Your task to perform on an android device: open app "Chime – Mobile Banking" (install if not already installed), go to login, and select forgot password Image 0: 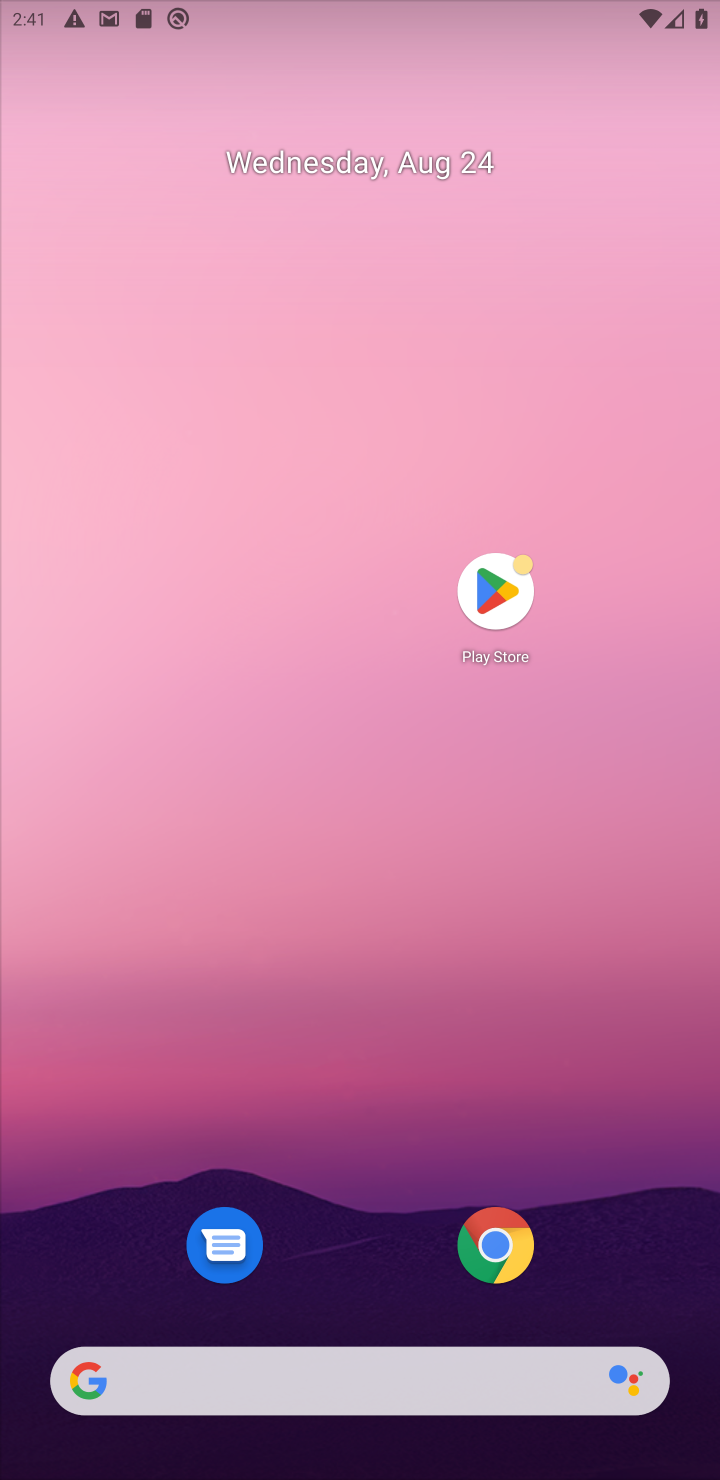
Step 0: press home button
Your task to perform on an android device: open app "Chime – Mobile Banking" (install if not already installed), go to login, and select forgot password Image 1: 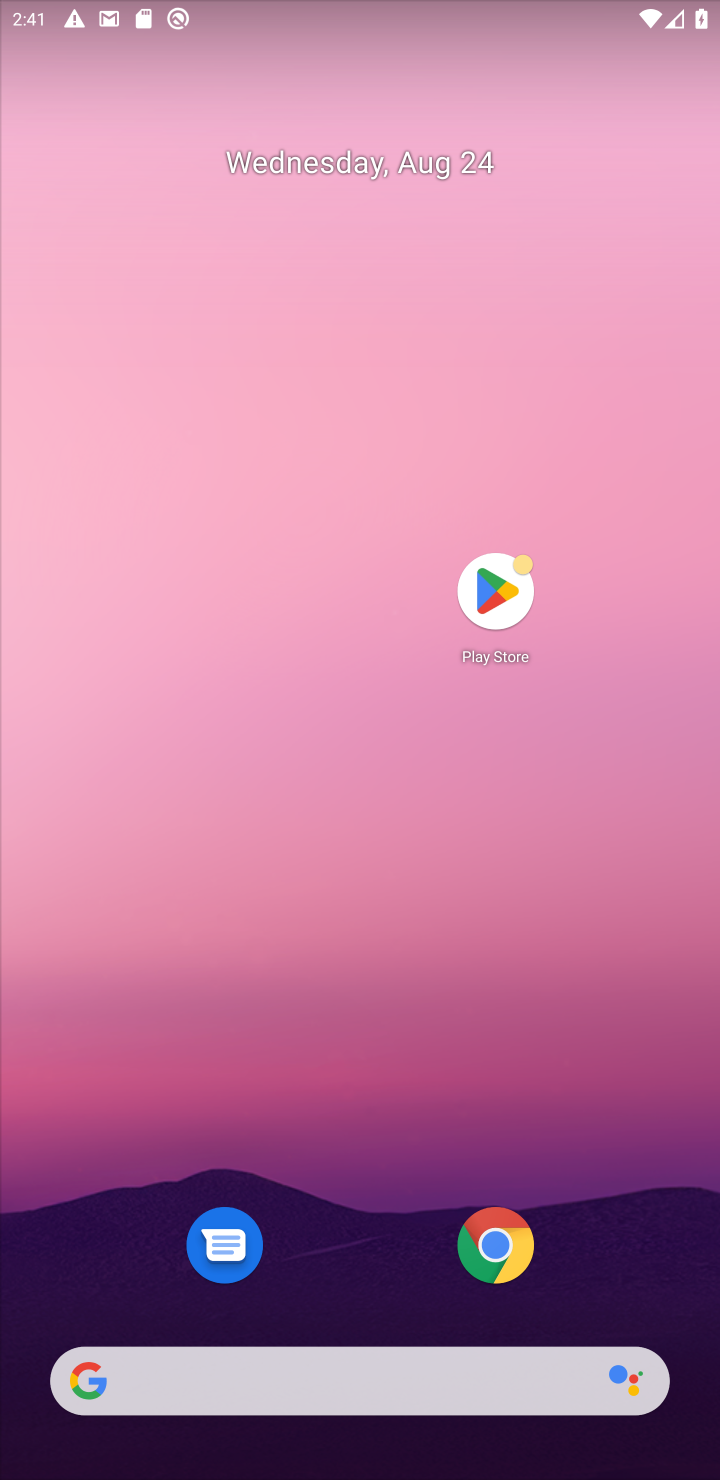
Step 1: click (509, 584)
Your task to perform on an android device: open app "Chime – Mobile Banking" (install if not already installed), go to login, and select forgot password Image 2: 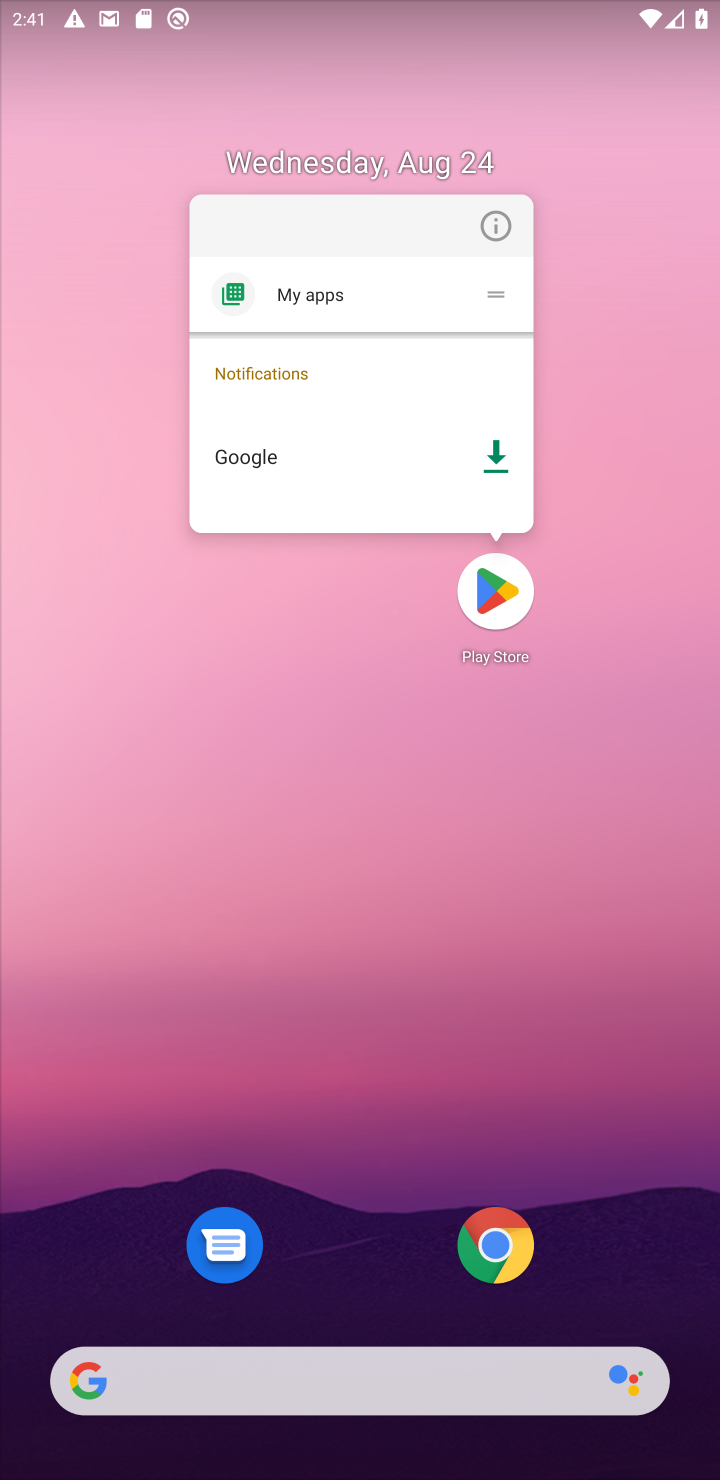
Step 2: click (509, 593)
Your task to perform on an android device: open app "Chime – Mobile Banking" (install if not already installed), go to login, and select forgot password Image 3: 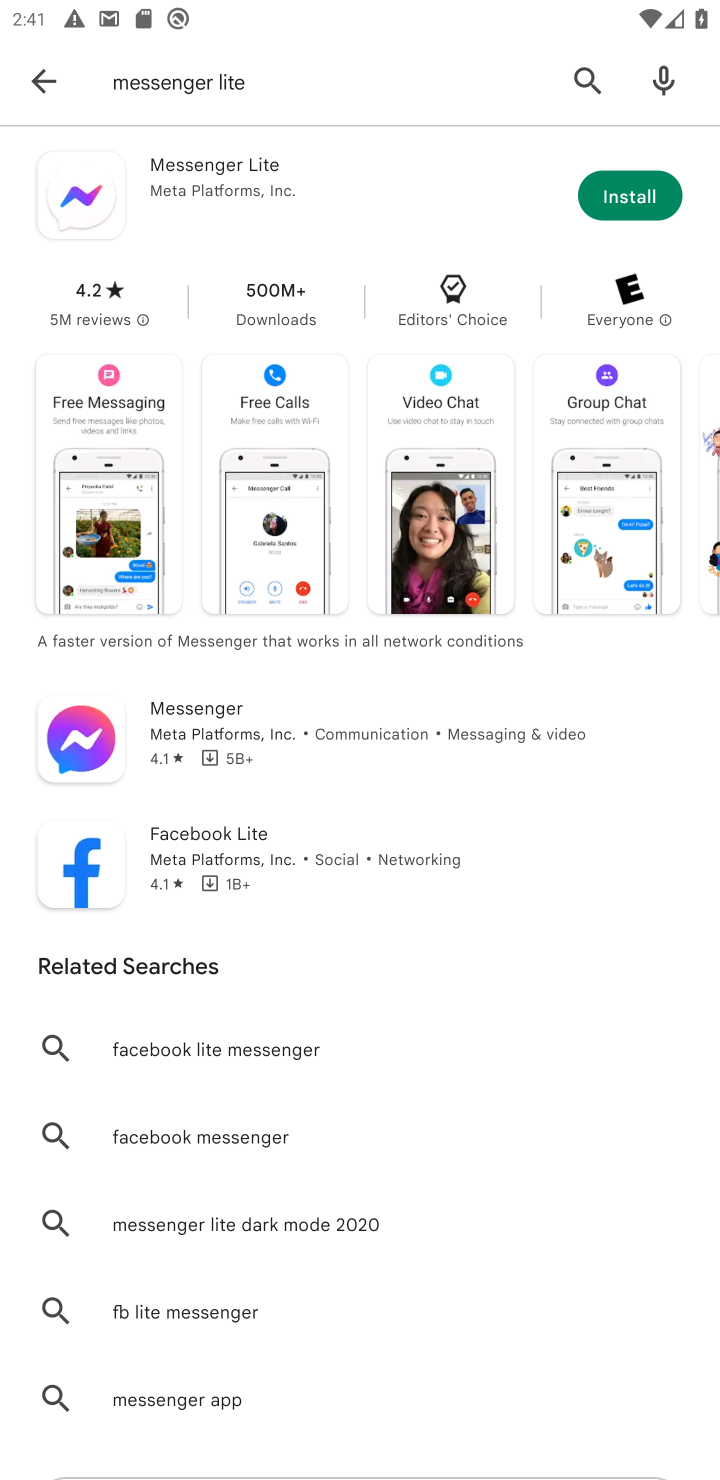
Step 3: click (578, 79)
Your task to perform on an android device: open app "Chime – Mobile Banking" (install if not already installed), go to login, and select forgot password Image 4: 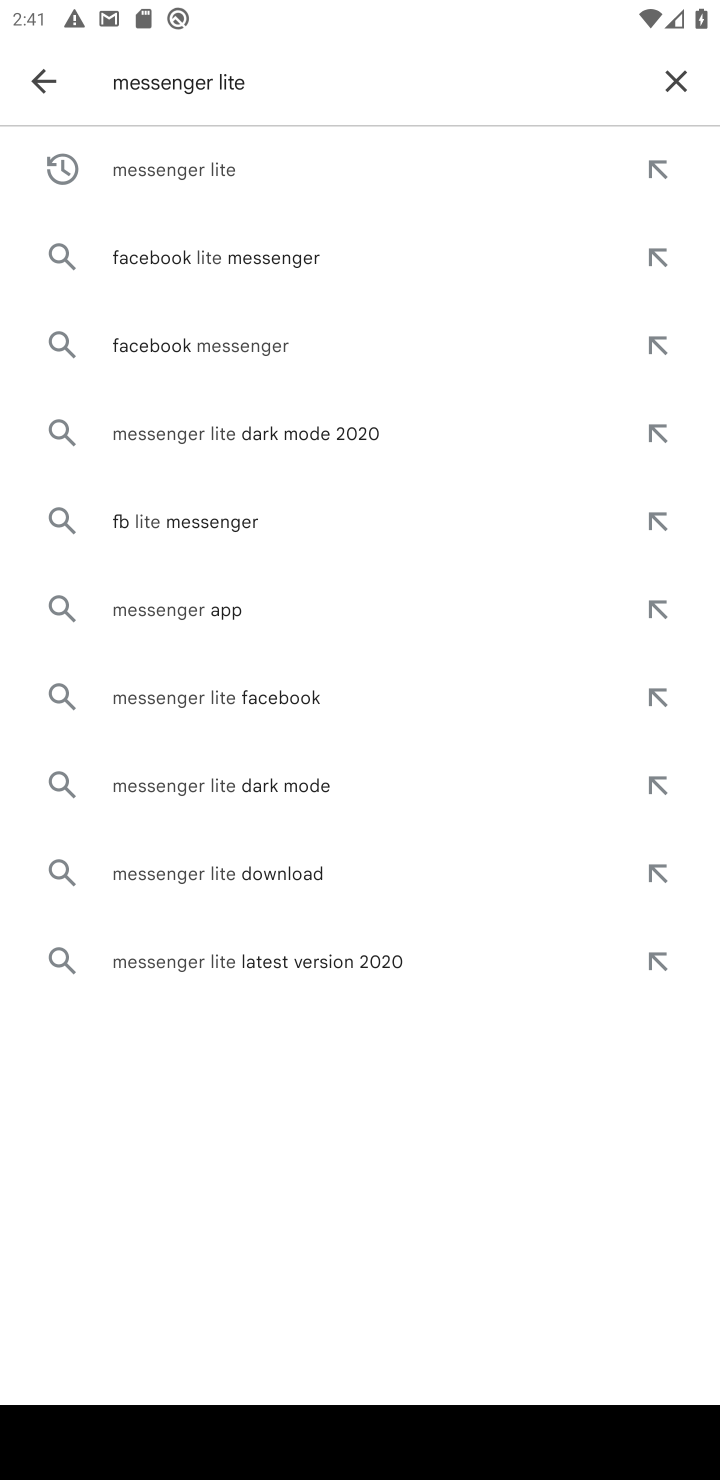
Step 4: type "Chime Mobile Banking"
Your task to perform on an android device: open app "Chime – Mobile Banking" (install if not already installed), go to login, and select forgot password Image 5: 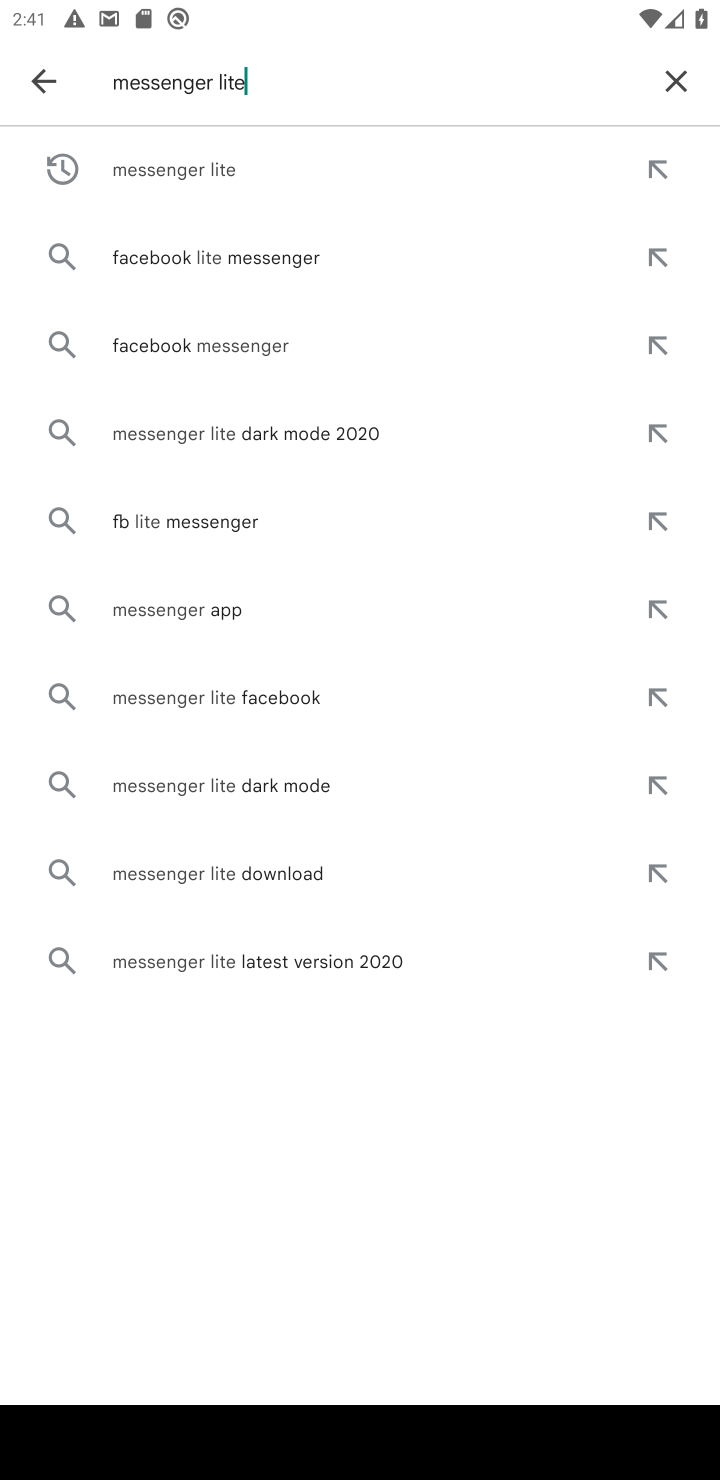
Step 5: click (674, 79)
Your task to perform on an android device: open app "Chime – Mobile Banking" (install if not already installed), go to login, and select forgot password Image 6: 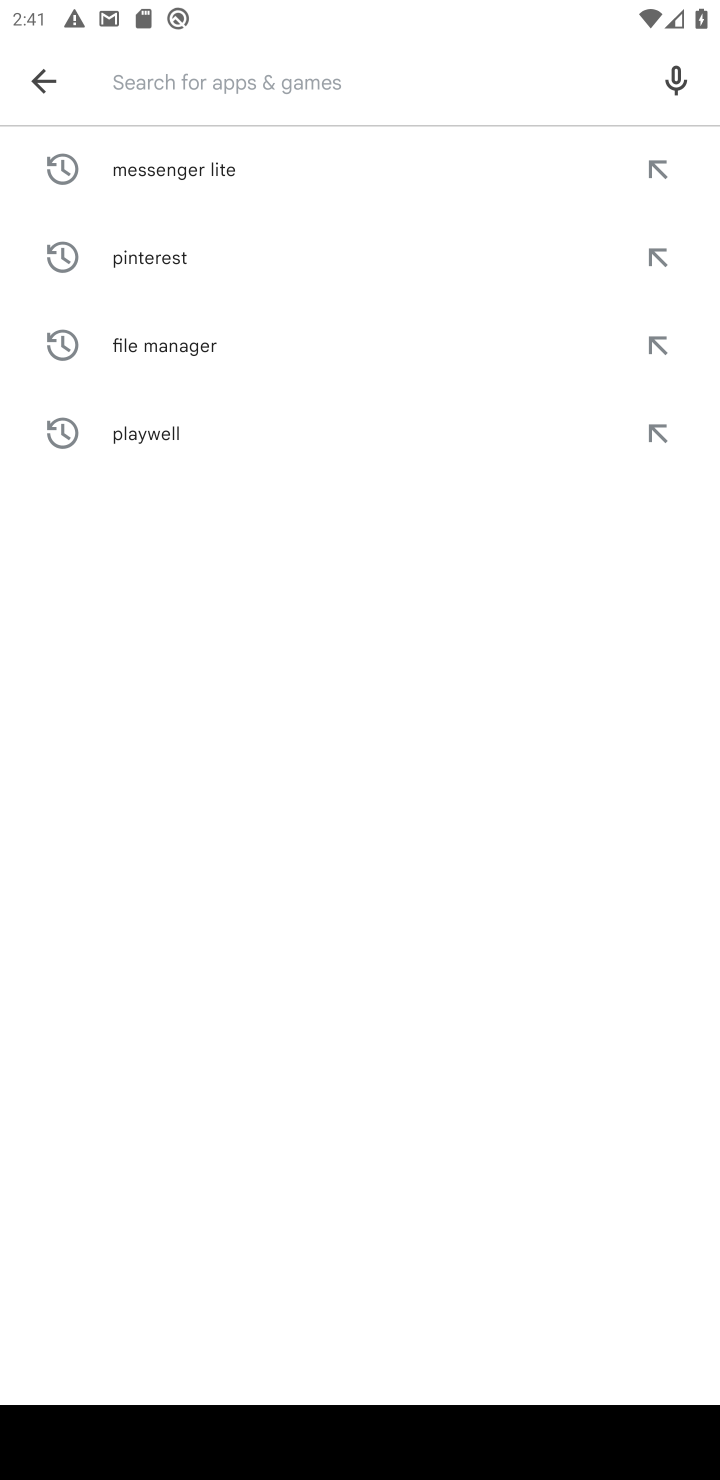
Step 6: type "Chime Mobile Banking"
Your task to perform on an android device: open app "Chime – Mobile Banking" (install if not already installed), go to login, and select forgot password Image 7: 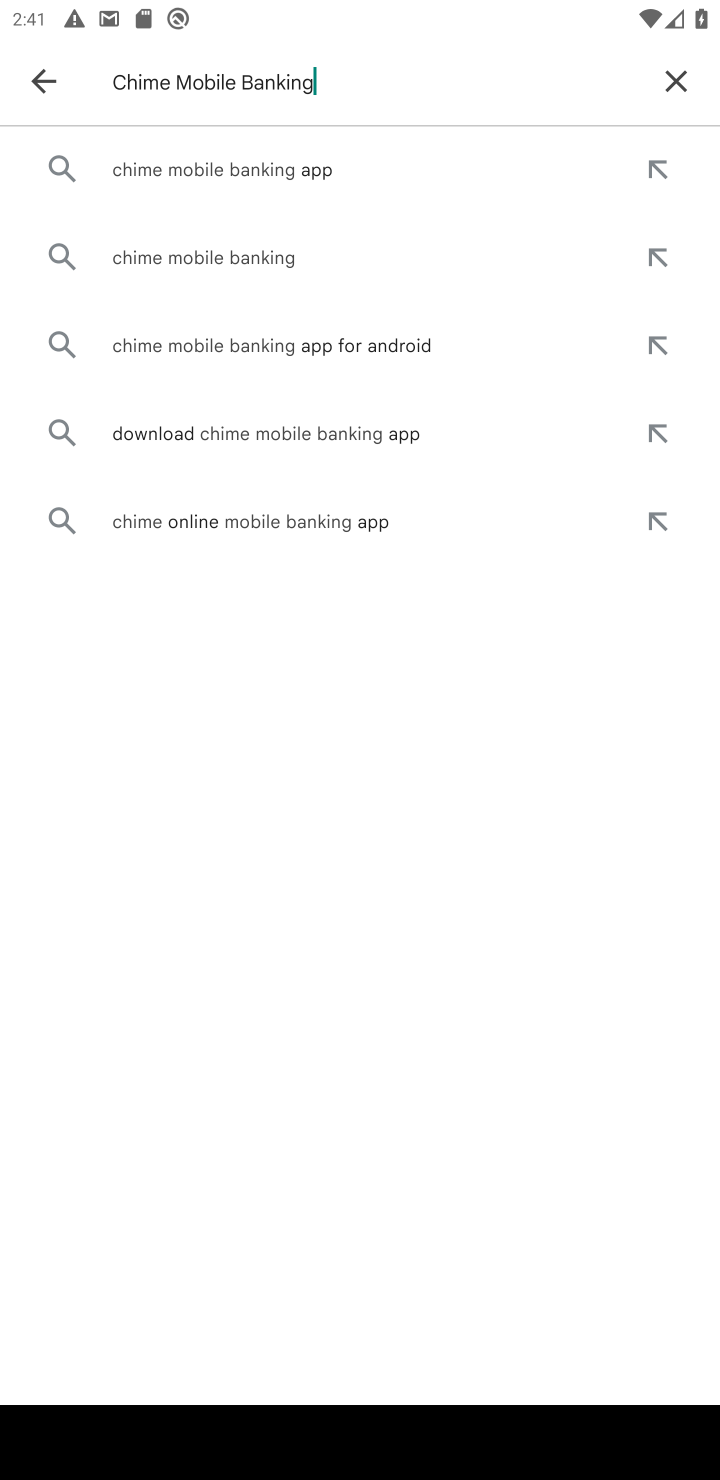
Step 7: click (241, 162)
Your task to perform on an android device: open app "Chime – Mobile Banking" (install if not already installed), go to login, and select forgot password Image 8: 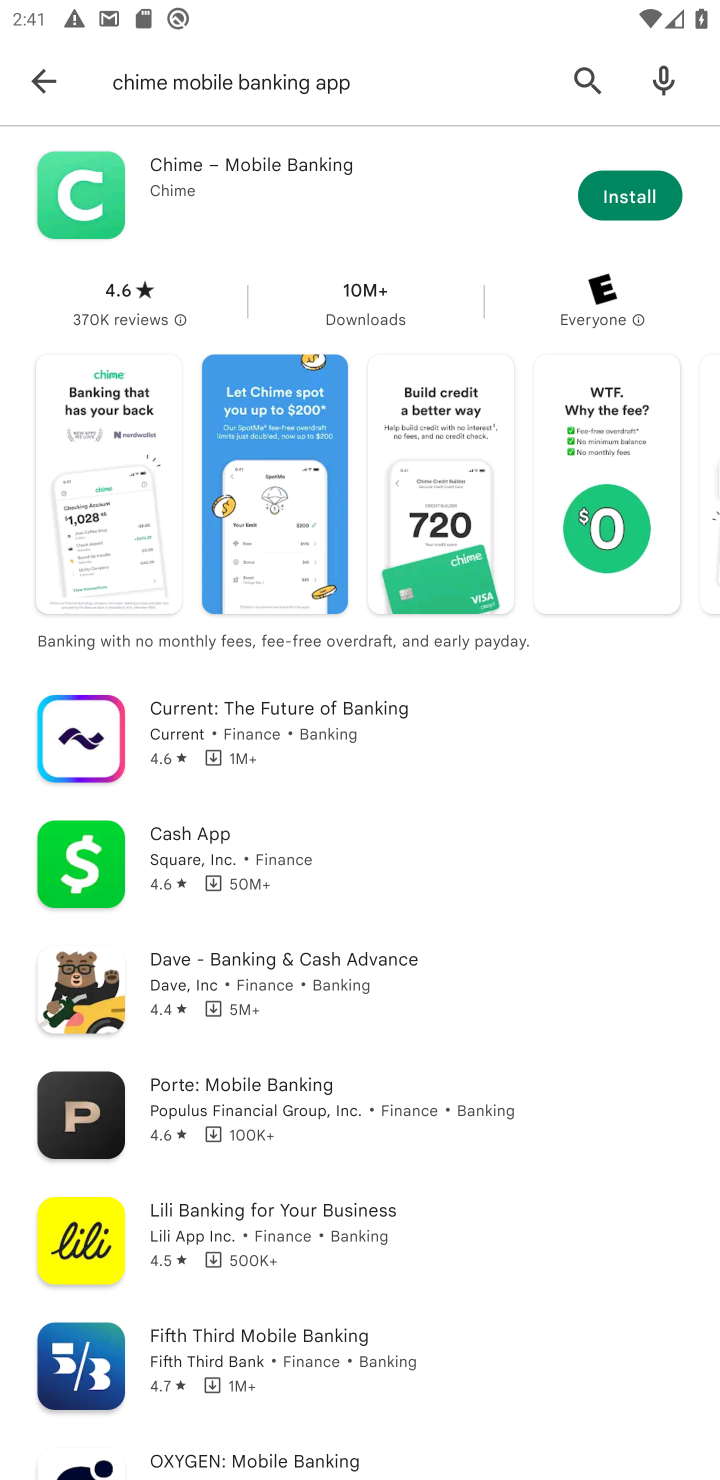
Step 8: click (619, 187)
Your task to perform on an android device: open app "Chime – Mobile Banking" (install if not already installed), go to login, and select forgot password Image 9: 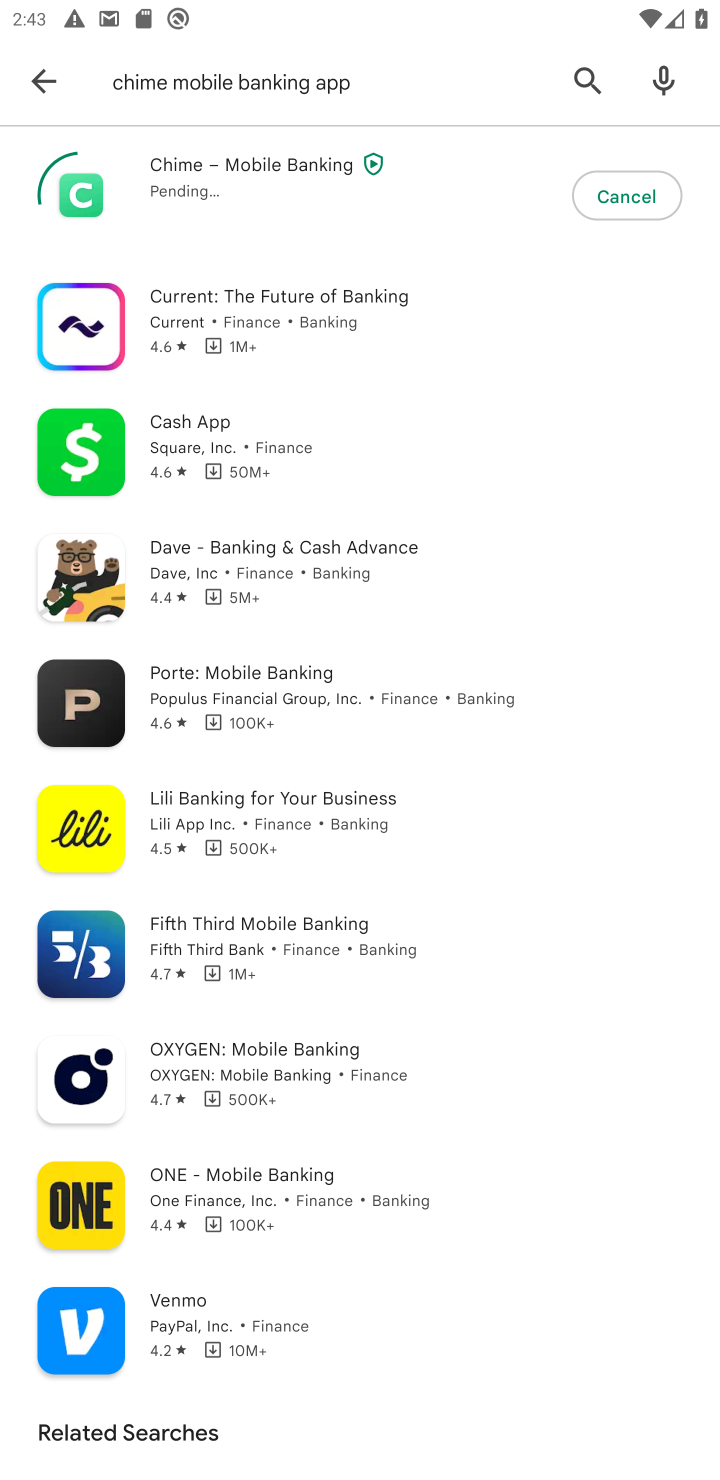
Step 9: task complete